Your task to perform on an android device: Turn on the flashlight Image 0: 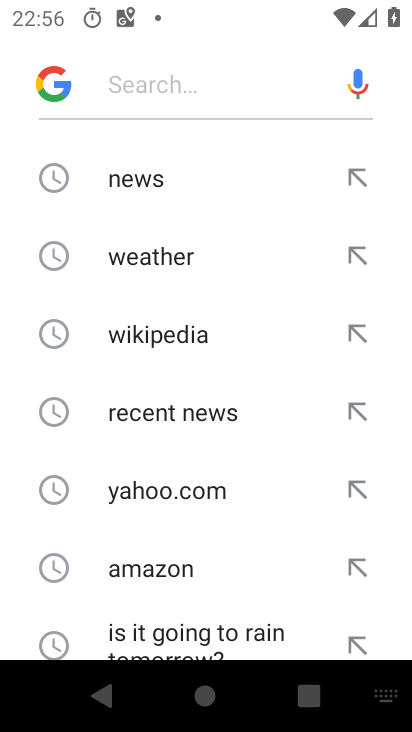
Step 0: press home button
Your task to perform on an android device: Turn on the flashlight Image 1: 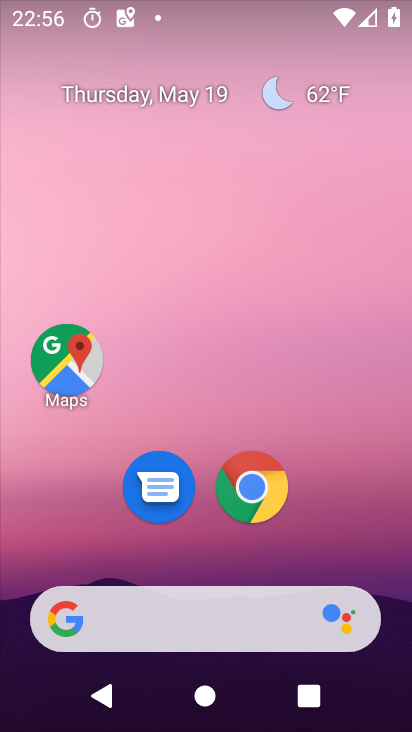
Step 1: drag from (322, 551) to (282, 122)
Your task to perform on an android device: Turn on the flashlight Image 2: 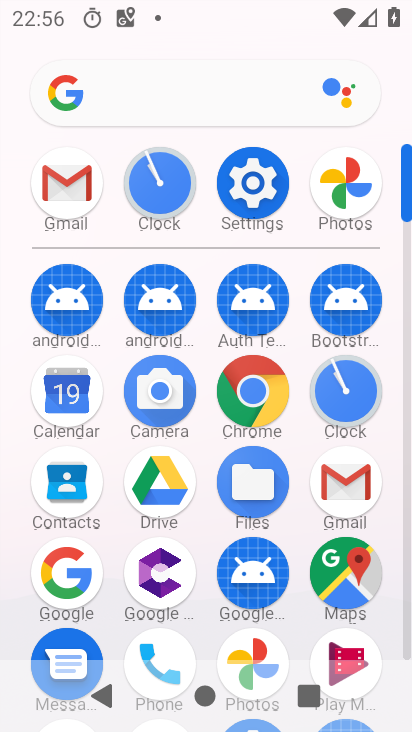
Step 2: click (250, 181)
Your task to perform on an android device: Turn on the flashlight Image 3: 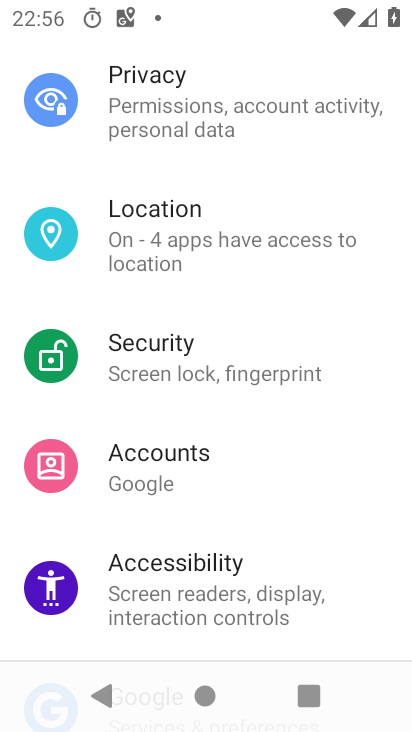
Step 3: drag from (300, 314) to (331, 558)
Your task to perform on an android device: Turn on the flashlight Image 4: 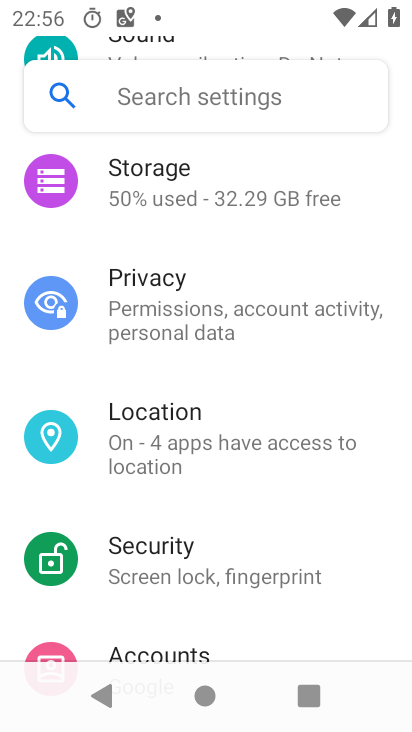
Step 4: drag from (300, 263) to (343, 569)
Your task to perform on an android device: Turn on the flashlight Image 5: 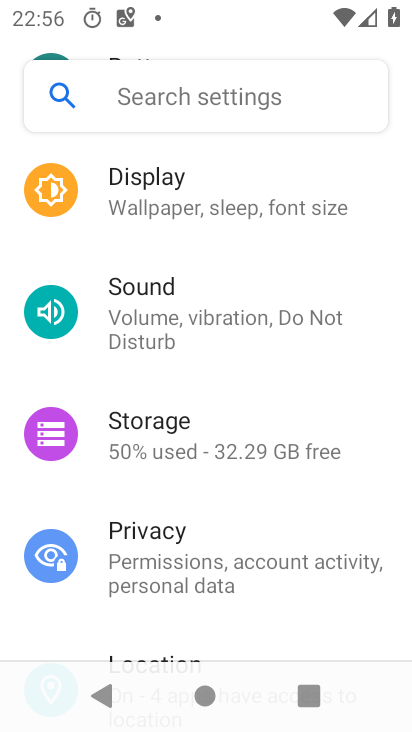
Step 5: drag from (280, 244) to (310, 565)
Your task to perform on an android device: Turn on the flashlight Image 6: 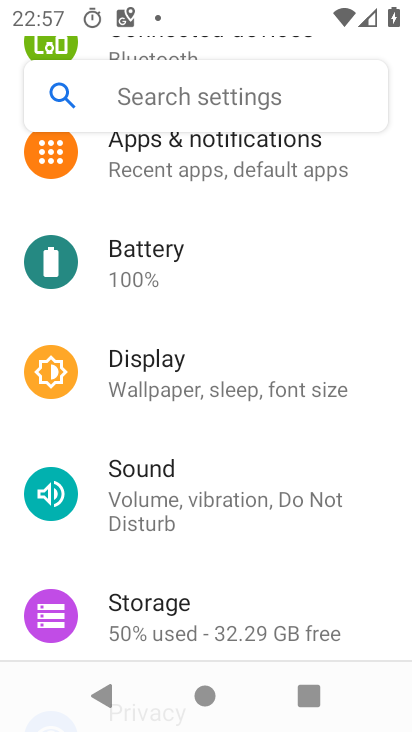
Step 6: click (278, 158)
Your task to perform on an android device: Turn on the flashlight Image 7: 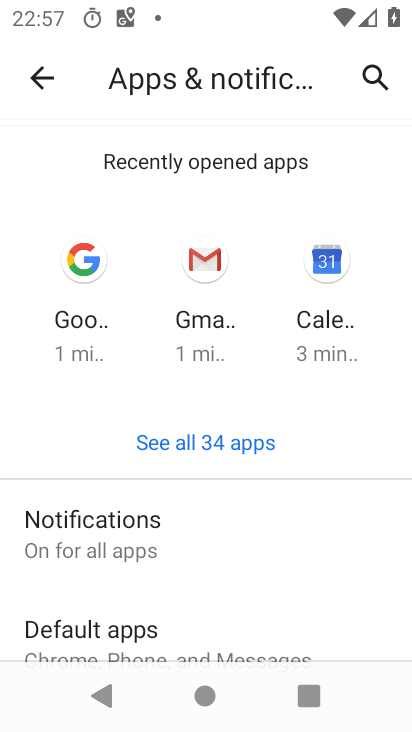
Step 7: drag from (269, 572) to (259, 223)
Your task to perform on an android device: Turn on the flashlight Image 8: 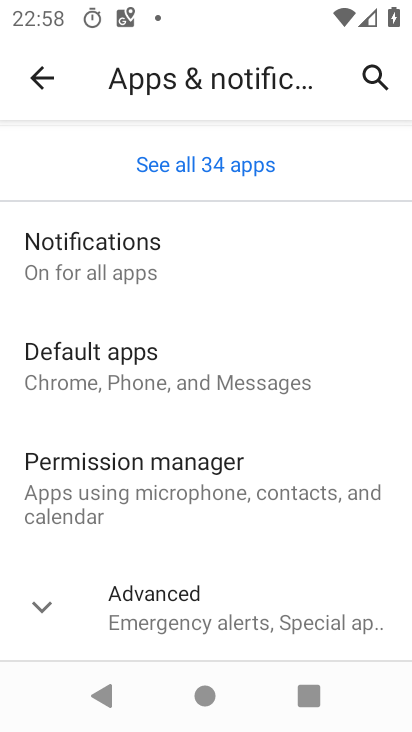
Step 8: click (266, 609)
Your task to perform on an android device: Turn on the flashlight Image 9: 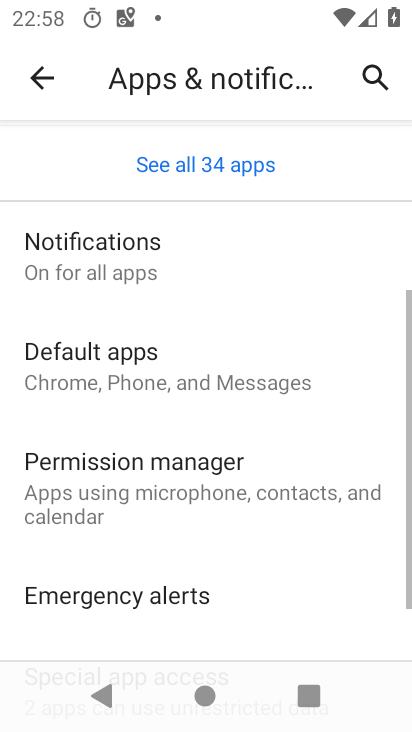
Step 9: task complete